Your task to perform on an android device: Open calendar and show me the fourth week of next month Image 0: 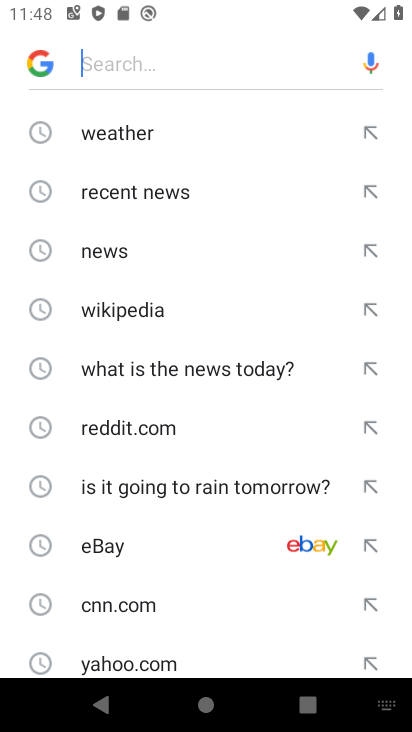
Step 0: press home button
Your task to perform on an android device: Open calendar and show me the fourth week of next month Image 1: 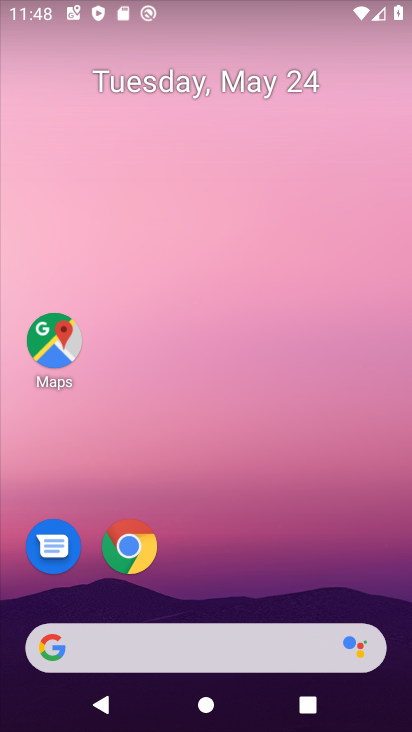
Step 1: drag from (236, 609) to (211, 185)
Your task to perform on an android device: Open calendar and show me the fourth week of next month Image 2: 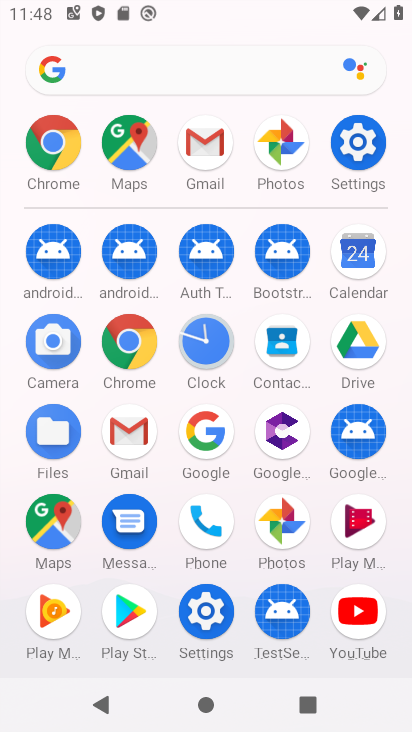
Step 2: click (367, 261)
Your task to perform on an android device: Open calendar and show me the fourth week of next month Image 3: 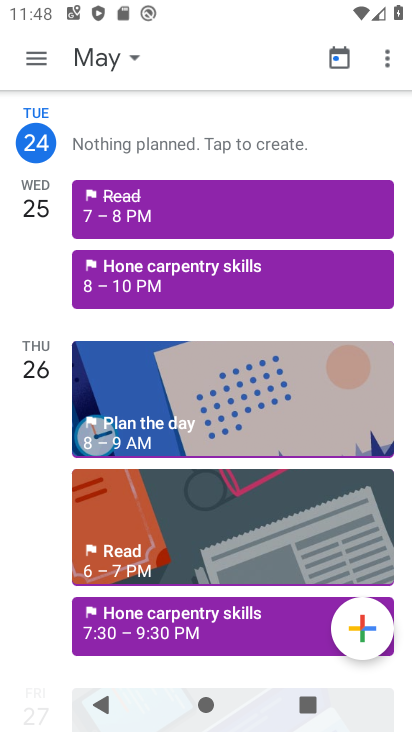
Step 3: click (33, 51)
Your task to perform on an android device: Open calendar and show me the fourth week of next month Image 4: 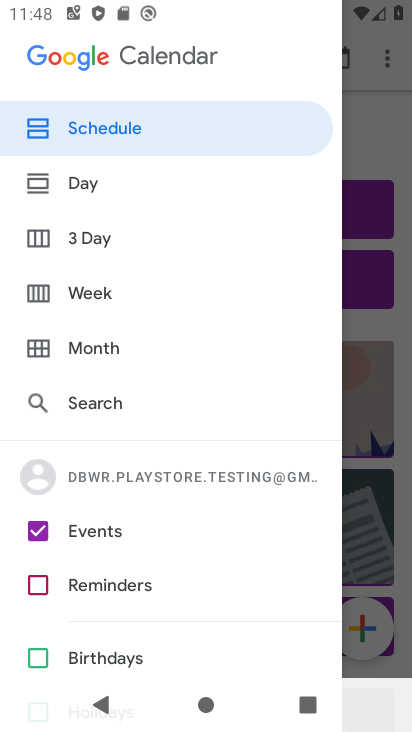
Step 4: click (136, 307)
Your task to perform on an android device: Open calendar and show me the fourth week of next month Image 5: 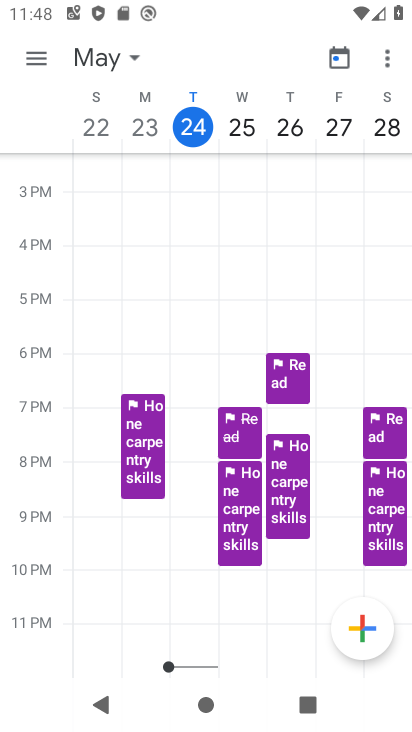
Step 5: click (112, 63)
Your task to perform on an android device: Open calendar and show me the fourth week of next month Image 6: 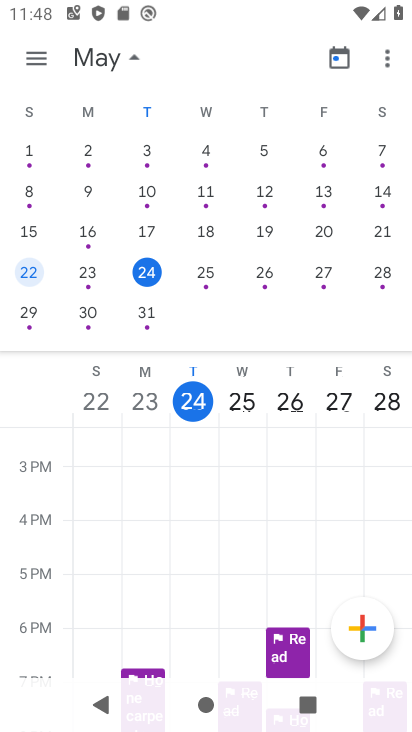
Step 6: drag from (390, 249) to (6, 244)
Your task to perform on an android device: Open calendar and show me the fourth week of next month Image 7: 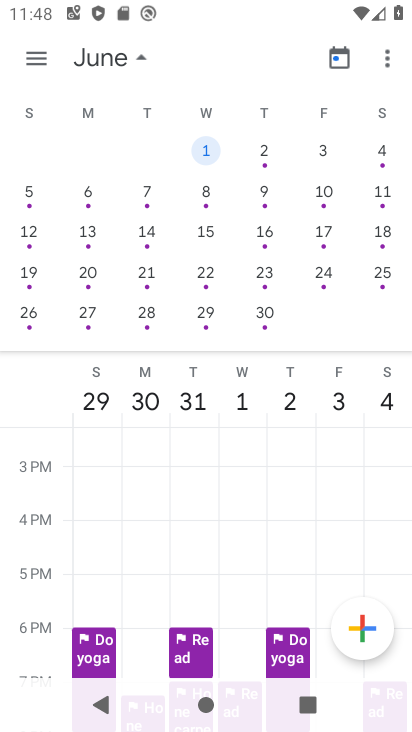
Step 7: click (209, 280)
Your task to perform on an android device: Open calendar and show me the fourth week of next month Image 8: 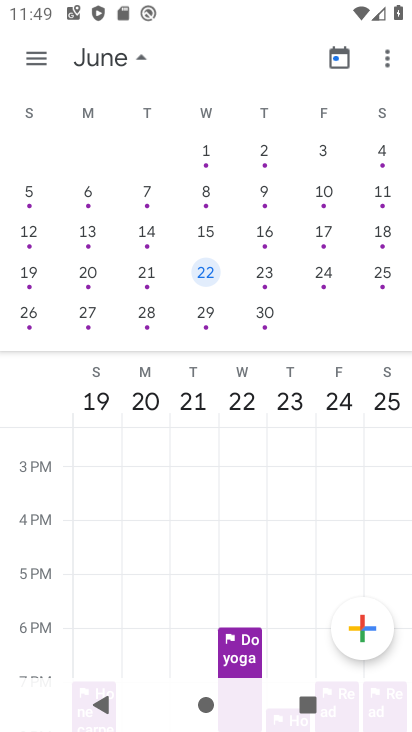
Step 8: task complete